Your task to perform on an android device: make emails show in primary in the gmail app Image 0: 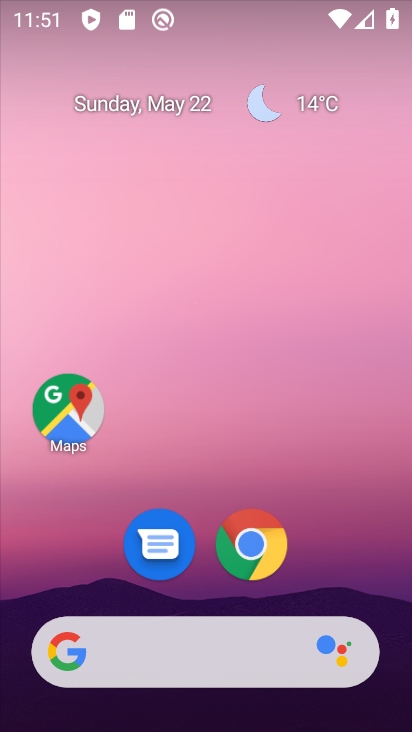
Step 0: drag from (344, 529) to (318, 59)
Your task to perform on an android device: make emails show in primary in the gmail app Image 1: 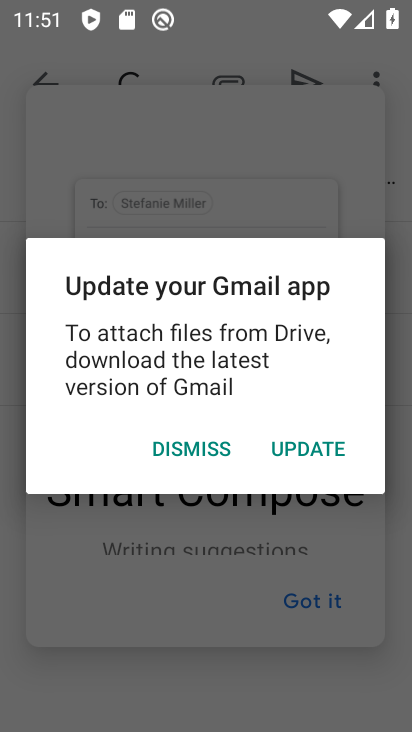
Step 1: press home button
Your task to perform on an android device: make emails show in primary in the gmail app Image 2: 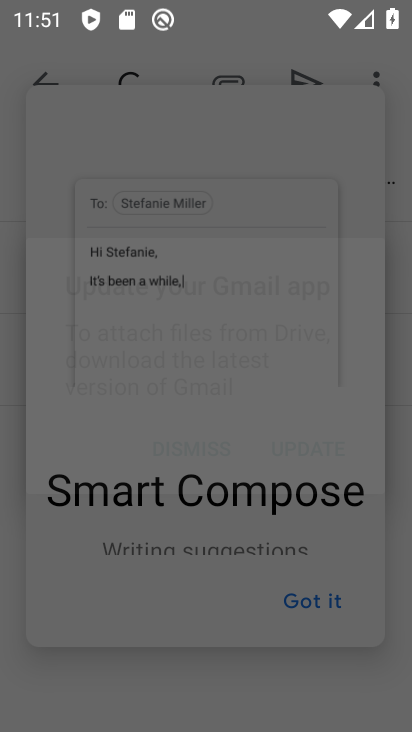
Step 2: press home button
Your task to perform on an android device: make emails show in primary in the gmail app Image 3: 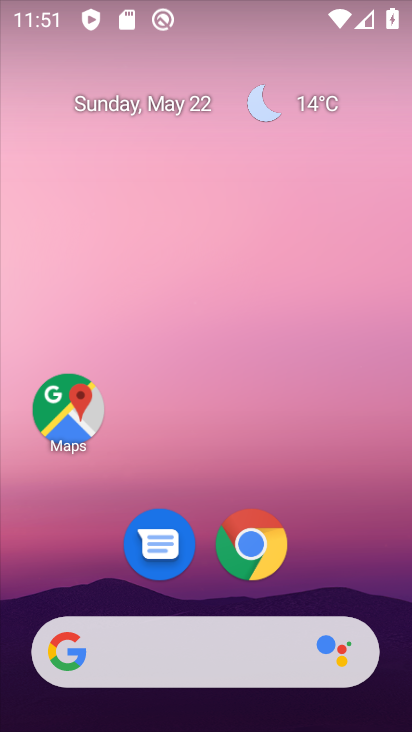
Step 3: drag from (373, 515) to (351, 92)
Your task to perform on an android device: make emails show in primary in the gmail app Image 4: 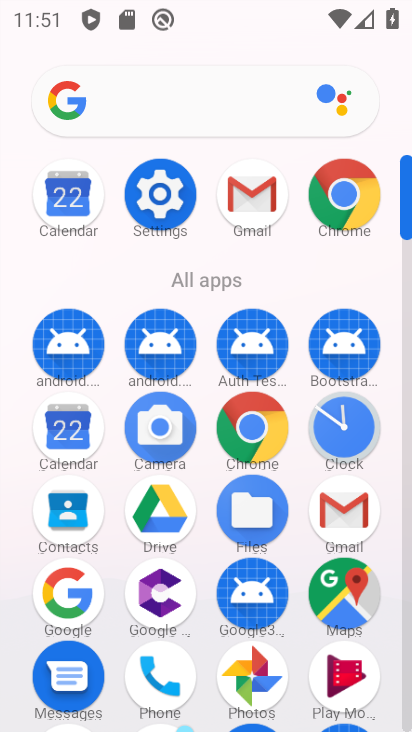
Step 4: click (272, 207)
Your task to perform on an android device: make emails show in primary in the gmail app Image 5: 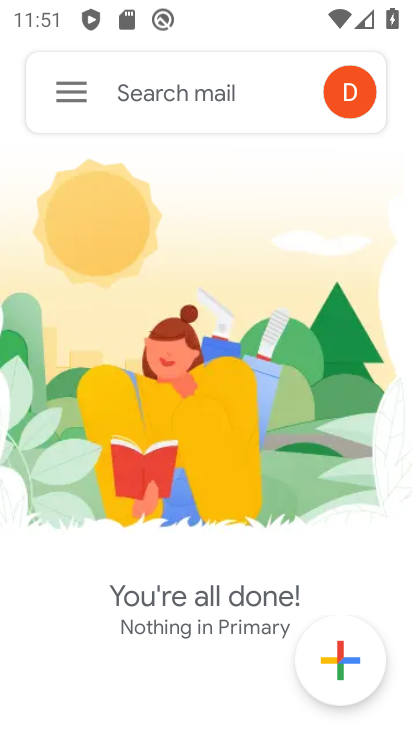
Step 5: click (59, 76)
Your task to perform on an android device: make emails show in primary in the gmail app Image 6: 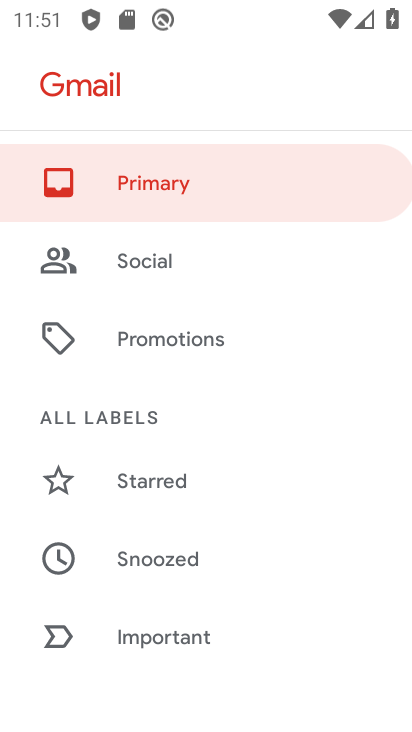
Step 6: drag from (241, 538) to (291, 84)
Your task to perform on an android device: make emails show in primary in the gmail app Image 7: 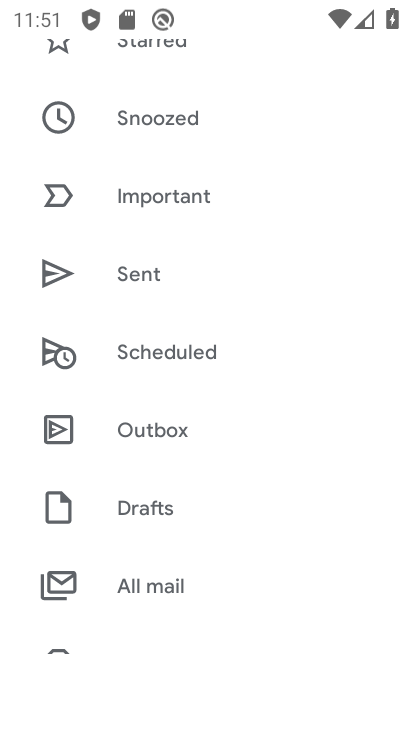
Step 7: drag from (171, 488) to (237, 66)
Your task to perform on an android device: make emails show in primary in the gmail app Image 8: 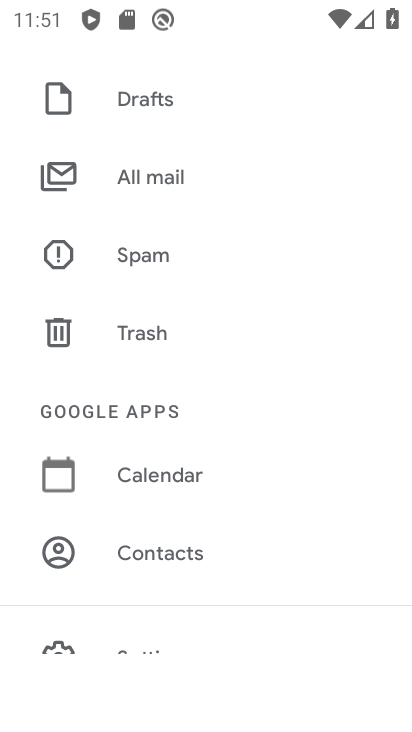
Step 8: drag from (131, 469) to (205, 119)
Your task to perform on an android device: make emails show in primary in the gmail app Image 9: 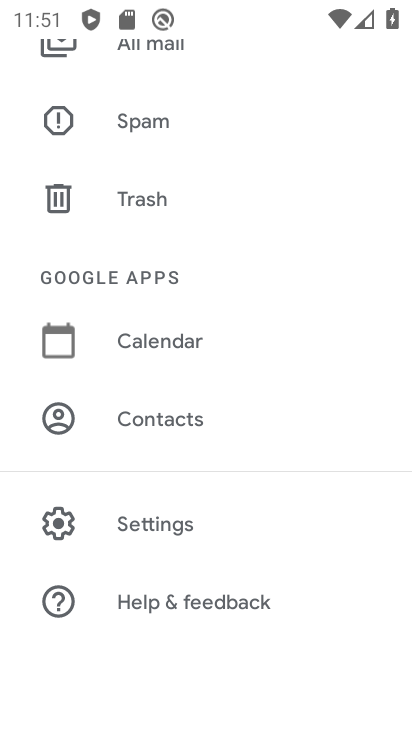
Step 9: click (131, 518)
Your task to perform on an android device: make emails show in primary in the gmail app Image 10: 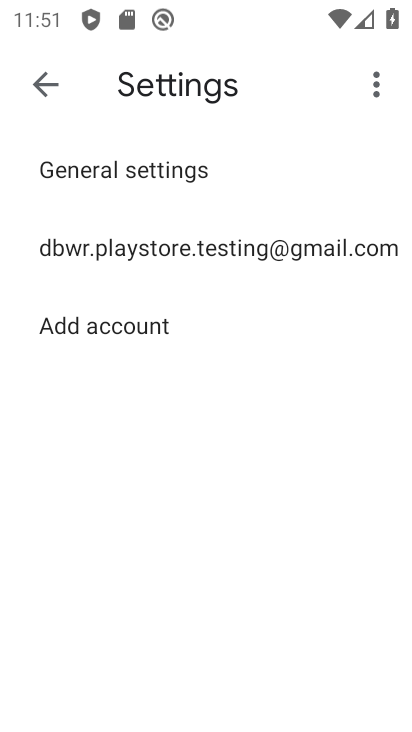
Step 10: click (189, 262)
Your task to perform on an android device: make emails show in primary in the gmail app Image 11: 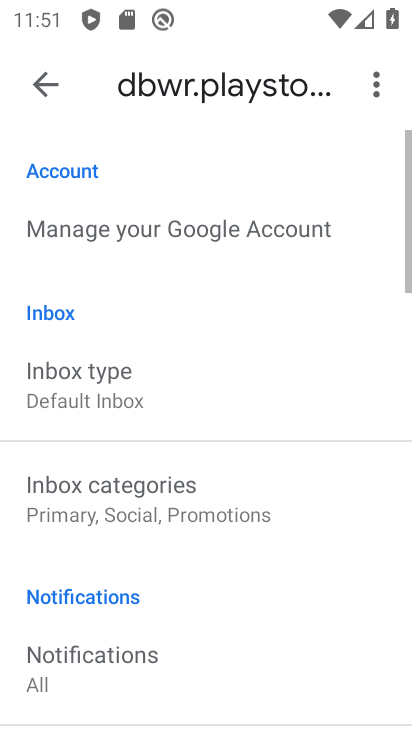
Step 11: click (127, 394)
Your task to perform on an android device: make emails show in primary in the gmail app Image 12: 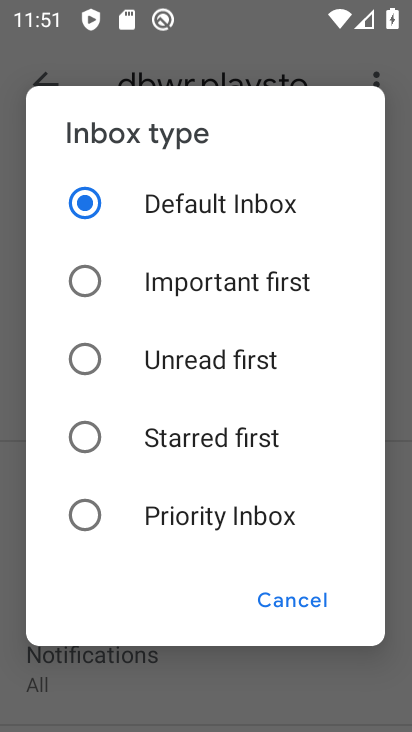
Step 12: click (255, 584)
Your task to perform on an android device: make emails show in primary in the gmail app Image 13: 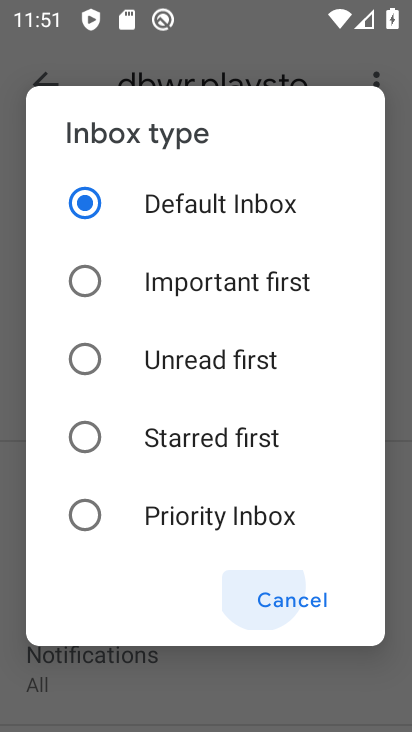
Step 13: click (277, 608)
Your task to perform on an android device: make emails show in primary in the gmail app Image 14: 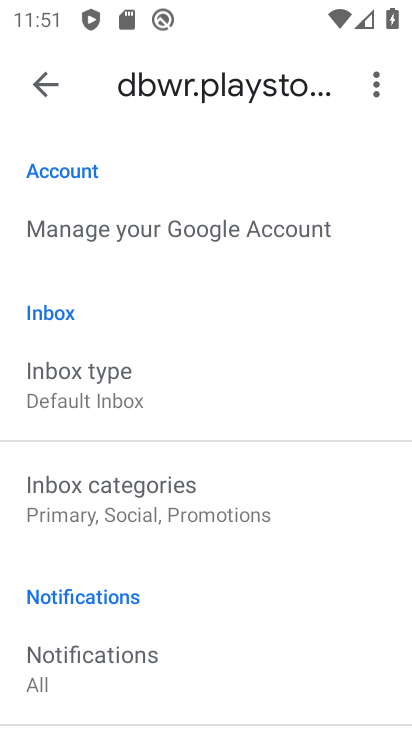
Step 14: click (201, 520)
Your task to perform on an android device: make emails show in primary in the gmail app Image 15: 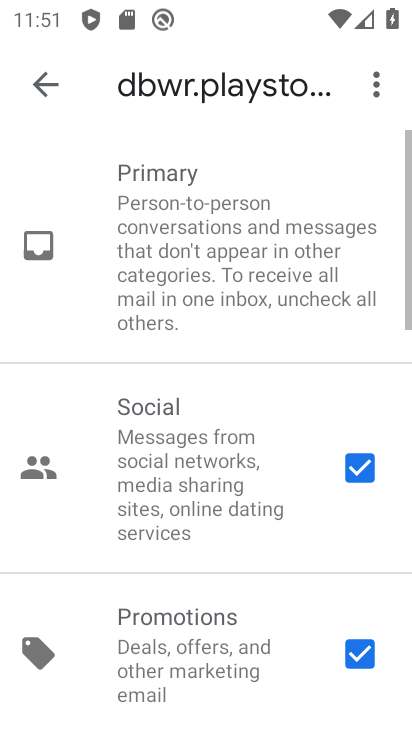
Step 15: task complete